Your task to perform on an android device: open wifi settings Image 0: 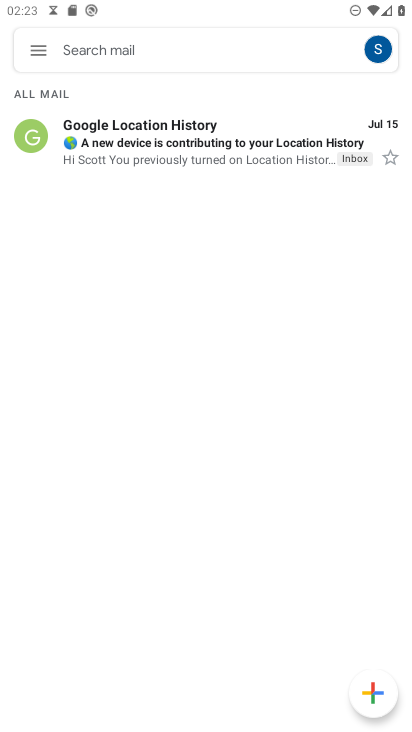
Step 0: press home button
Your task to perform on an android device: open wifi settings Image 1: 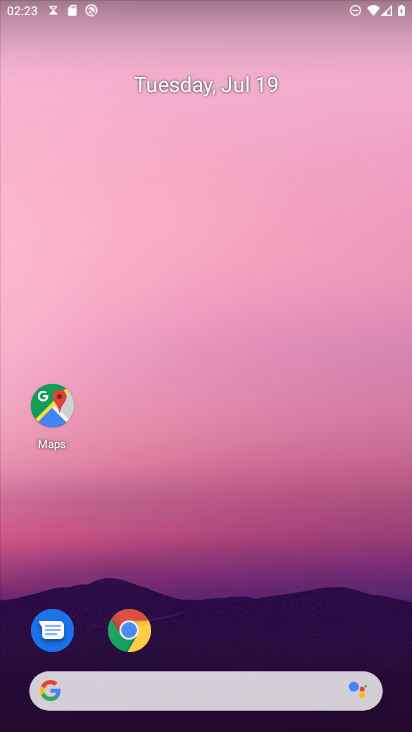
Step 1: drag from (204, 673) to (317, 145)
Your task to perform on an android device: open wifi settings Image 2: 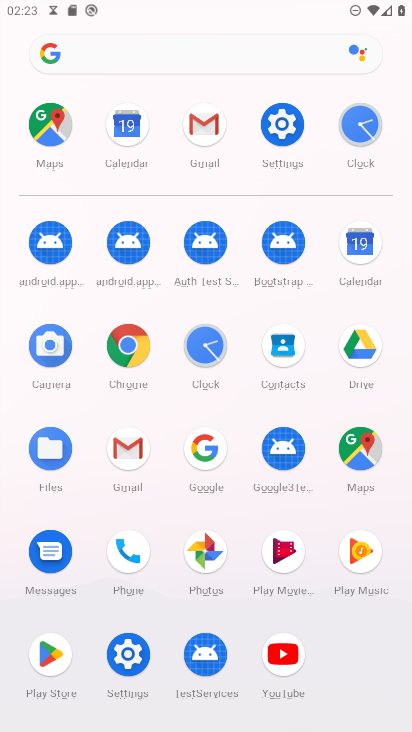
Step 2: click (287, 127)
Your task to perform on an android device: open wifi settings Image 3: 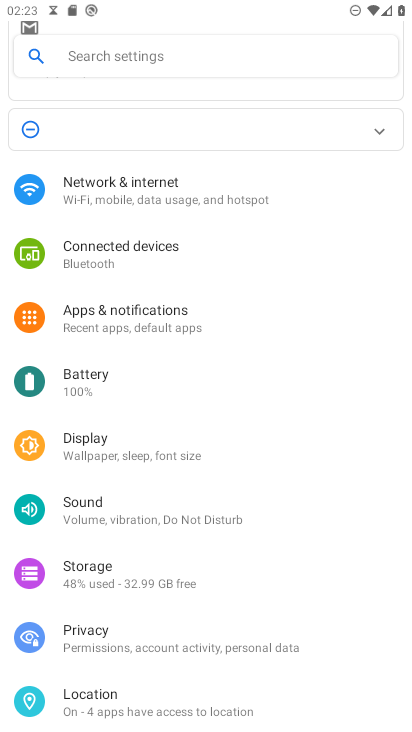
Step 3: click (136, 191)
Your task to perform on an android device: open wifi settings Image 4: 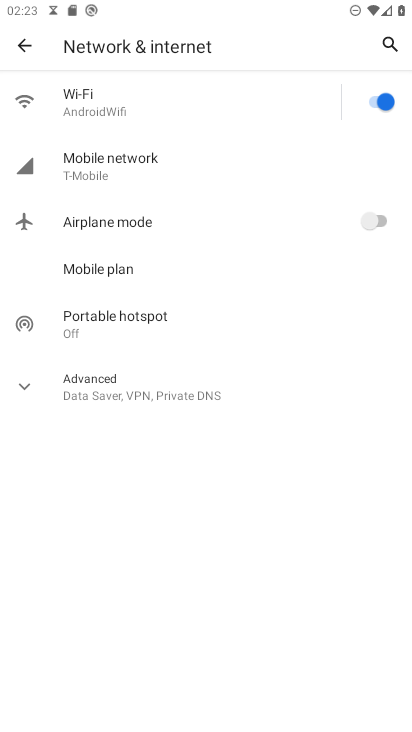
Step 4: click (82, 109)
Your task to perform on an android device: open wifi settings Image 5: 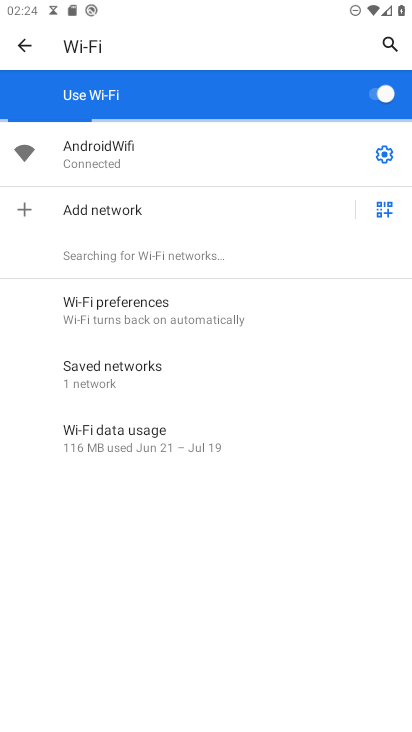
Step 5: task complete